Your task to perform on an android device: turn off airplane mode Image 0: 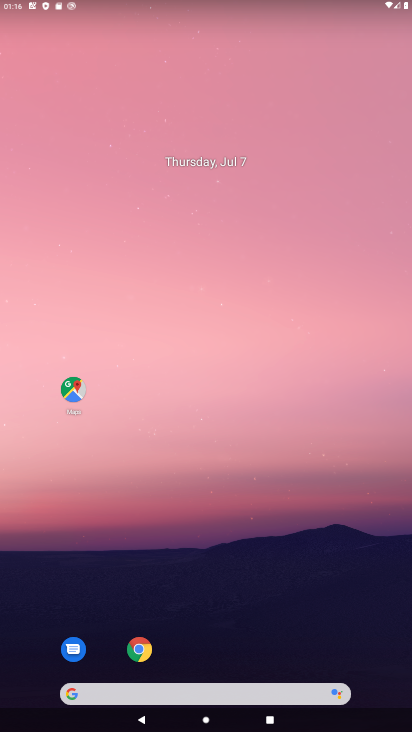
Step 0: drag from (319, 6) to (297, 334)
Your task to perform on an android device: turn off airplane mode Image 1: 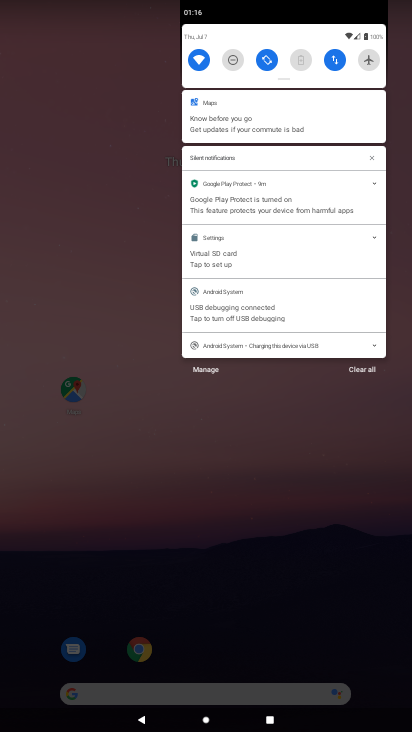
Step 1: task complete